Your task to perform on an android device: turn off smart reply in the gmail app Image 0: 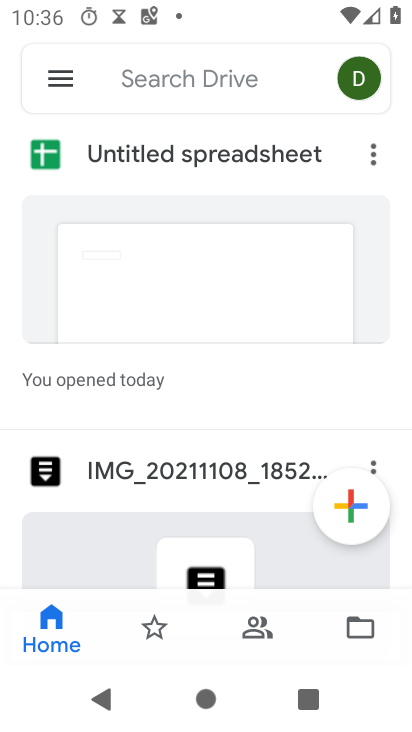
Step 0: press back button
Your task to perform on an android device: turn off smart reply in the gmail app Image 1: 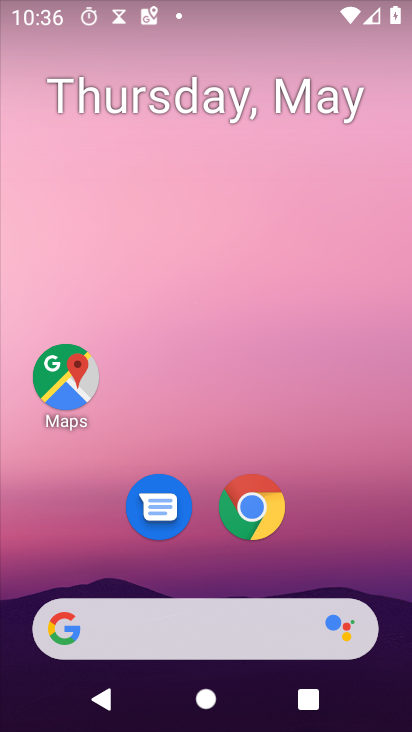
Step 1: drag from (321, 562) to (294, 55)
Your task to perform on an android device: turn off smart reply in the gmail app Image 2: 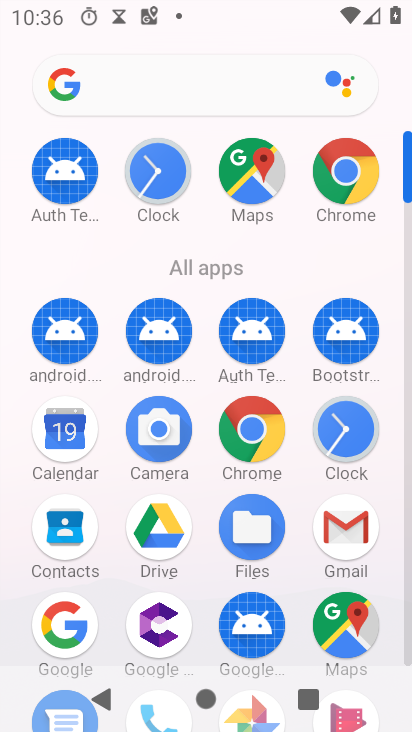
Step 2: click (343, 517)
Your task to perform on an android device: turn off smart reply in the gmail app Image 3: 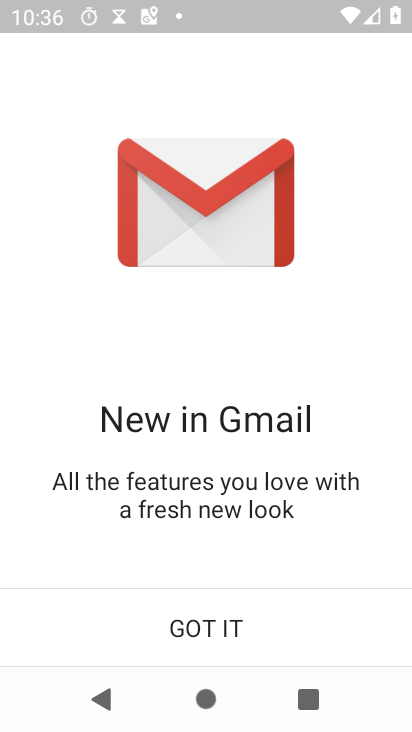
Step 3: click (233, 631)
Your task to perform on an android device: turn off smart reply in the gmail app Image 4: 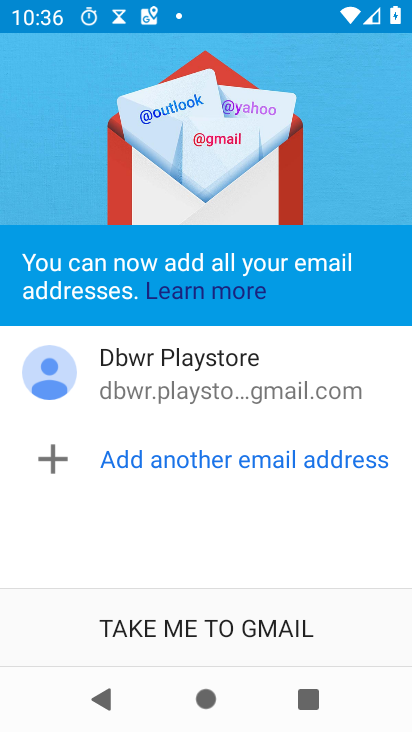
Step 4: click (197, 641)
Your task to perform on an android device: turn off smart reply in the gmail app Image 5: 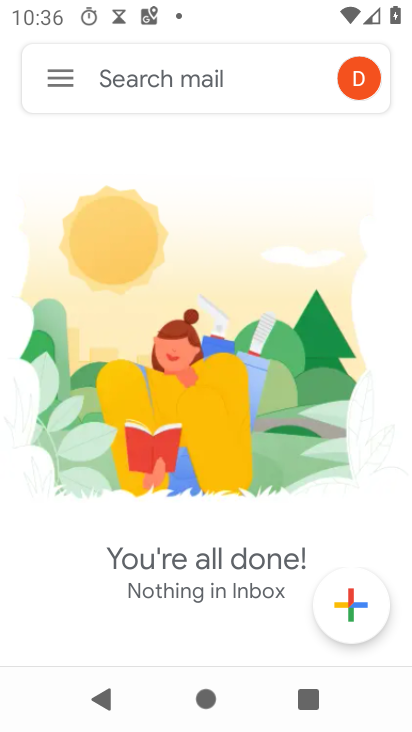
Step 5: click (55, 71)
Your task to perform on an android device: turn off smart reply in the gmail app Image 6: 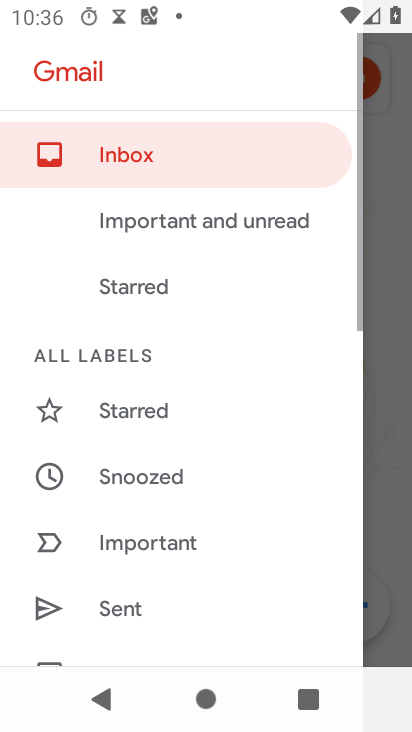
Step 6: drag from (257, 595) to (264, 68)
Your task to perform on an android device: turn off smart reply in the gmail app Image 7: 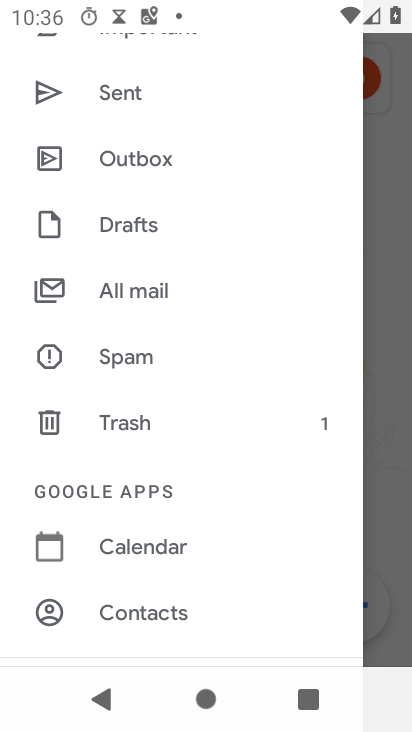
Step 7: drag from (249, 611) to (250, 107)
Your task to perform on an android device: turn off smart reply in the gmail app Image 8: 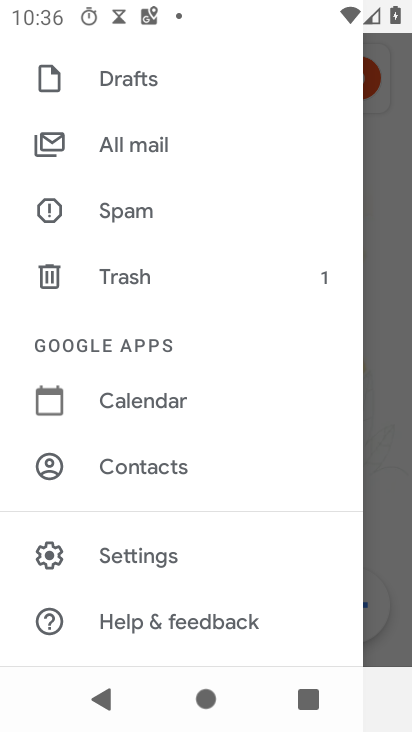
Step 8: click (145, 538)
Your task to perform on an android device: turn off smart reply in the gmail app Image 9: 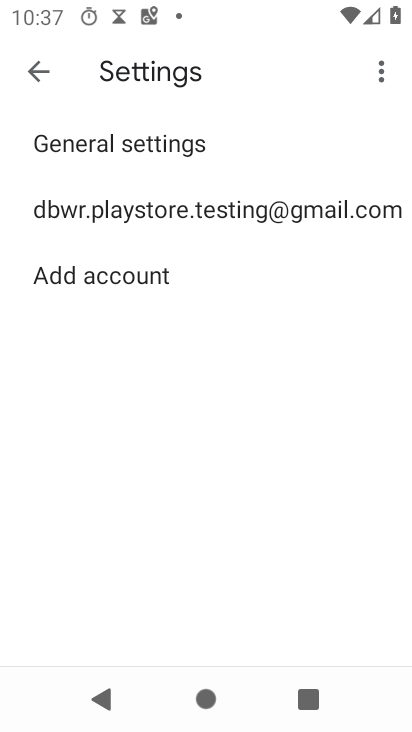
Step 9: click (164, 215)
Your task to perform on an android device: turn off smart reply in the gmail app Image 10: 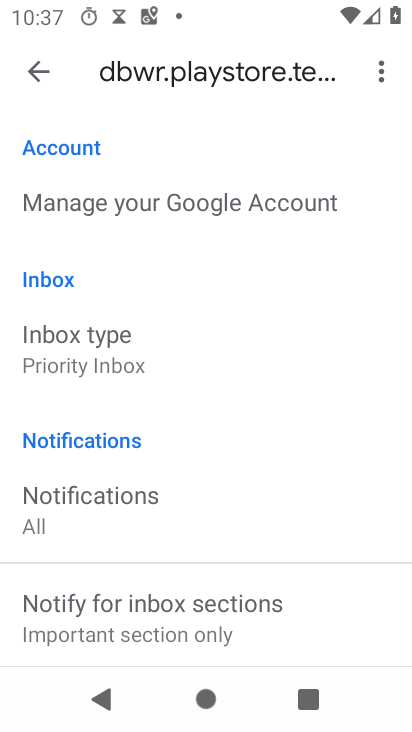
Step 10: drag from (263, 602) to (244, 165)
Your task to perform on an android device: turn off smart reply in the gmail app Image 11: 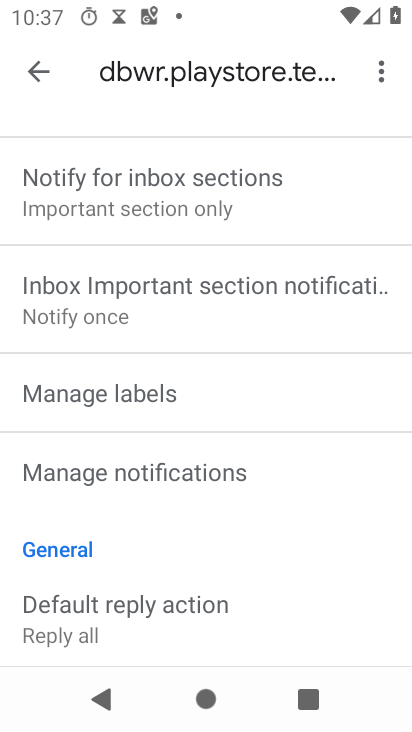
Step 11: drag from (251, 221) to (277, 602)
Your task to perform on an android device: turn off smart reply in the gmail app Image 12: 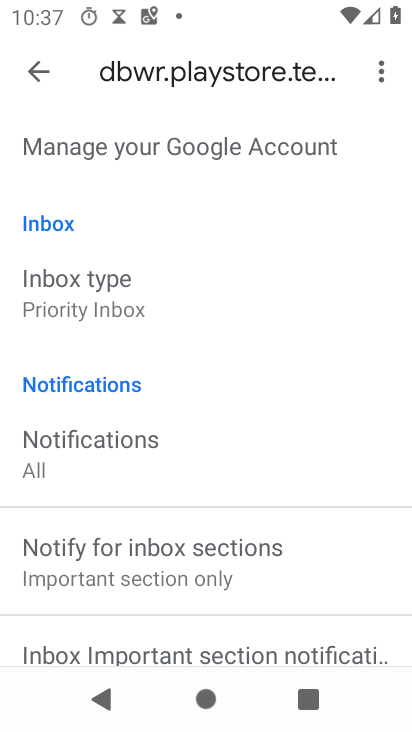
Step 12: drag from (270, 588) to (269, 161)
Your task to perform on an android device: turn off smart reply in the gmail app Image 13: 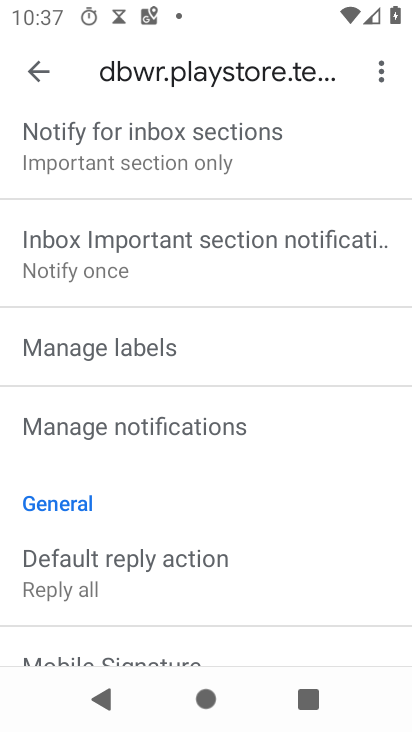
Step 13: drag from (274, 584) to (260, 170)
Your task to perform on an android device: turn off smart reply in the gmail app Image 14: 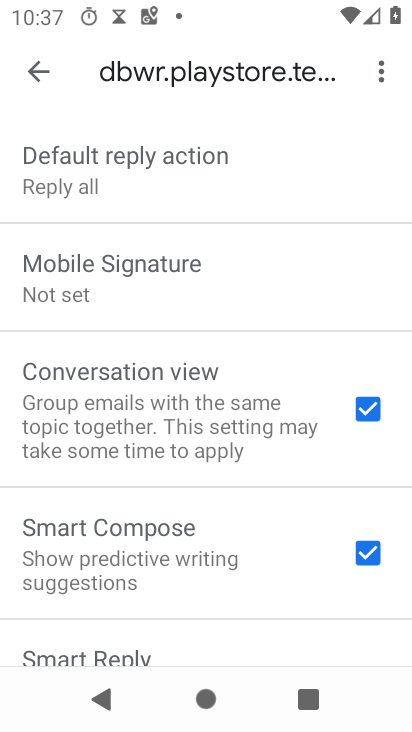
Step 14: drag from (259, 546) to (259, 188)
Your task to perform on an android device: turn off smart reply in the gmail app Image 15: 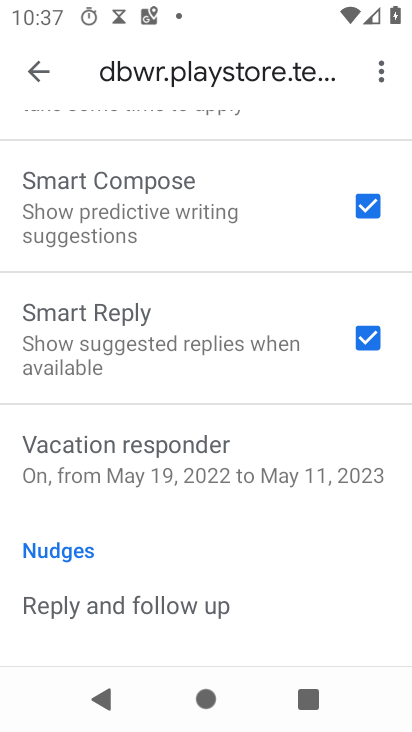
Step 15: click (372, 336)
Your task to perform on an android device: turn off smart reply in the gmail app Image 16: 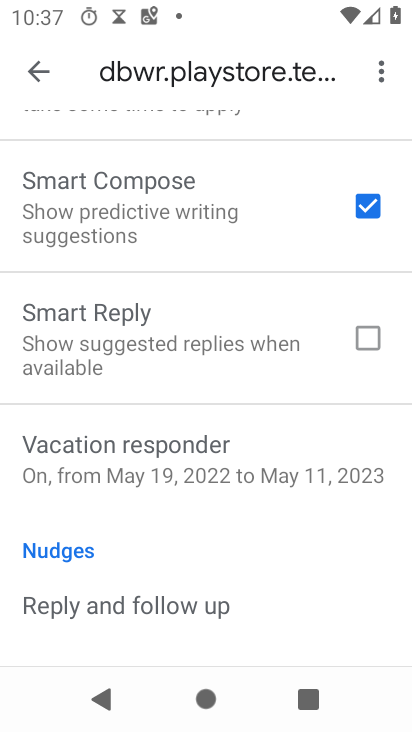
Step 16: task complete